Your task to perform on an android device: change the upload size in google photos Image 0: 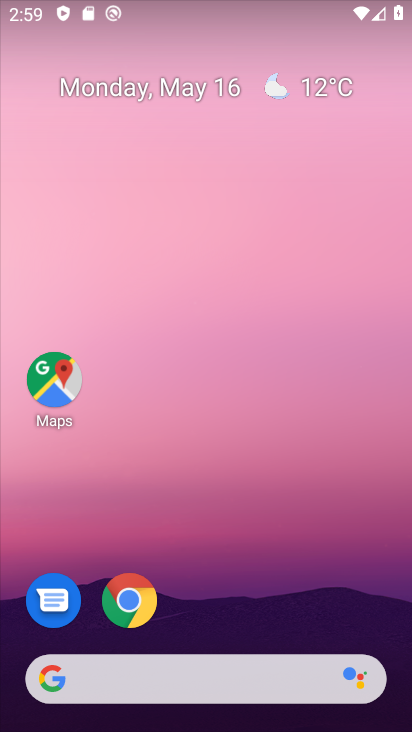
Step 0: drag from (233, 648) to (403, 1)
Your task to perform on an android device: change the upload size in google photos Image 1: 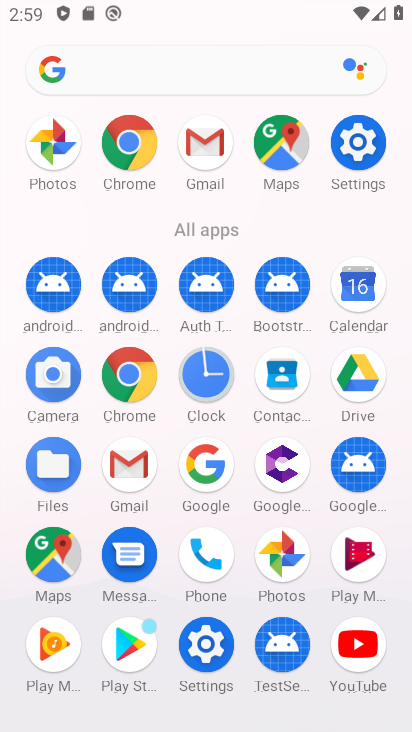
Step 1: click (278, 546)
Your task to perform on an android device: change the upload size in google photos Image 2: 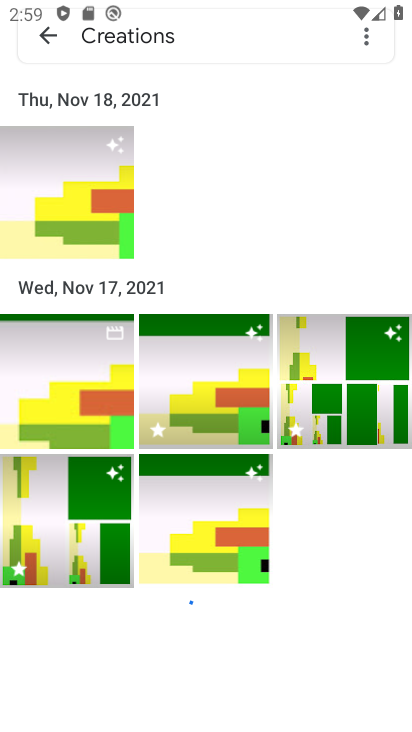
Step 2: click (40, 39)
Your task to perform on an android device: change the upload size in google photos Image 3: 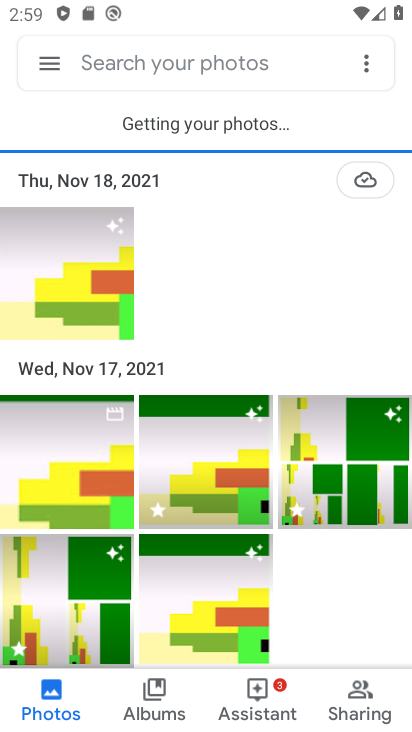
Step 3: click (30, 56)
Your task to perform on an android device: change the upload size in google photos Image 4: 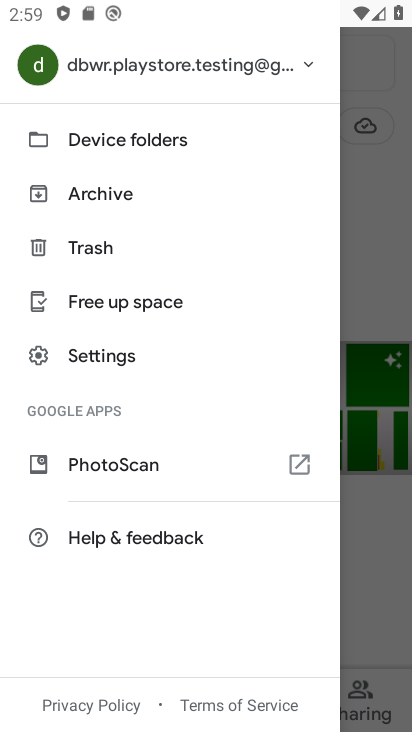
Step 4: click (96, 347)
Your task to perform on an android device: change the upload size in google photos Image 5: 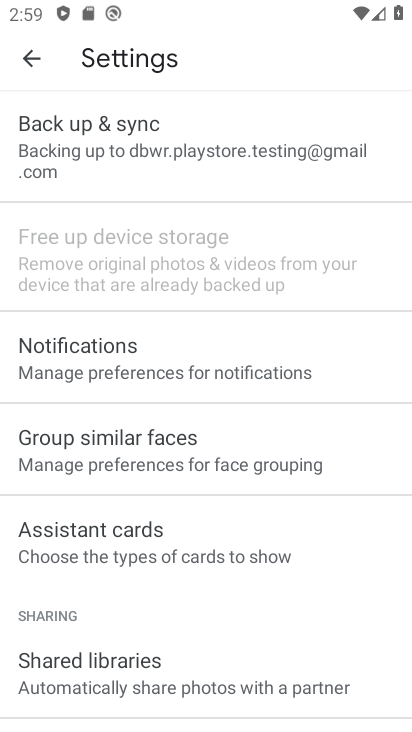
Step 5: click (105, 155)
Your task to perform on an android device: change the upload size in google photos Image 6: 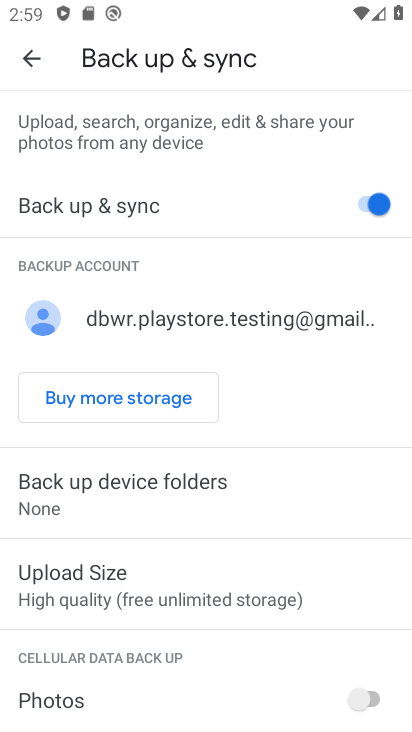
Step 6: click (102, 579)
Your task to perform on an android device: change the upload size in google photos Image 7: 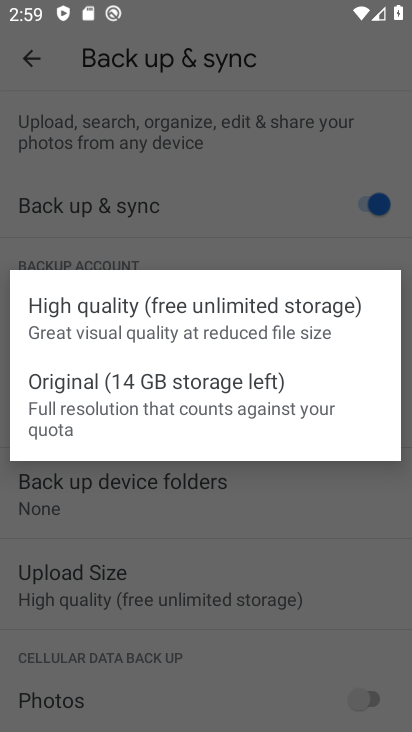
Step 7: click (131, 415)
Your task to perform on an android device: change the upload size in google photos Image 8: 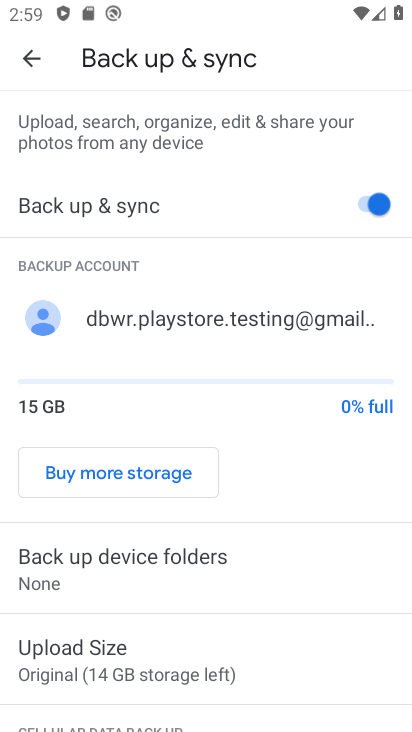
Step 8: task complete